Your task to perform on an android device: Search for sushi restaurants on Maps Image 0: 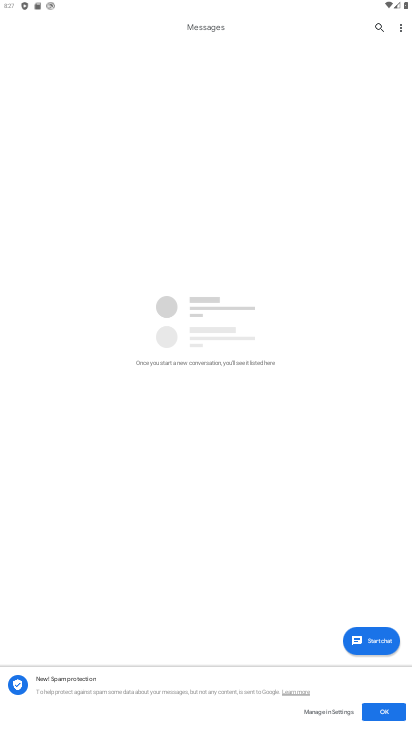
Step 0: press home button
Your task to perform on an android device: Search for sushi restaurants on Maps Image 1: 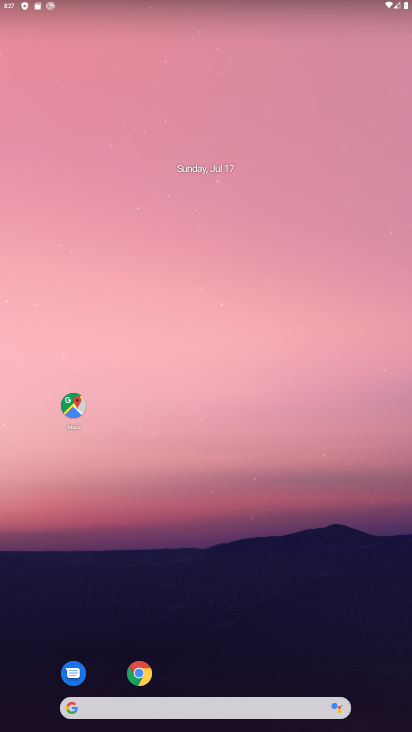
Step 1: drag from (243, 385) to (245, 235)
Your task to perform on an android device: Search for sushi restaurants on Maps Image 2: 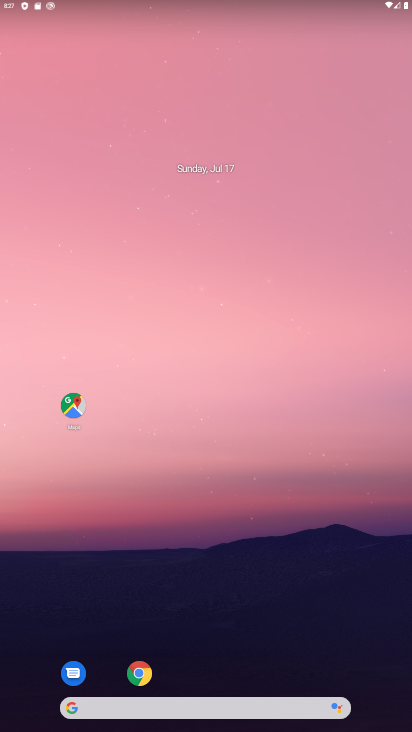
Step 2: drag from (206, 653) to (221, 115)
Your task to perform on an android device: Search for sushi restaurants on Maps Image 3: 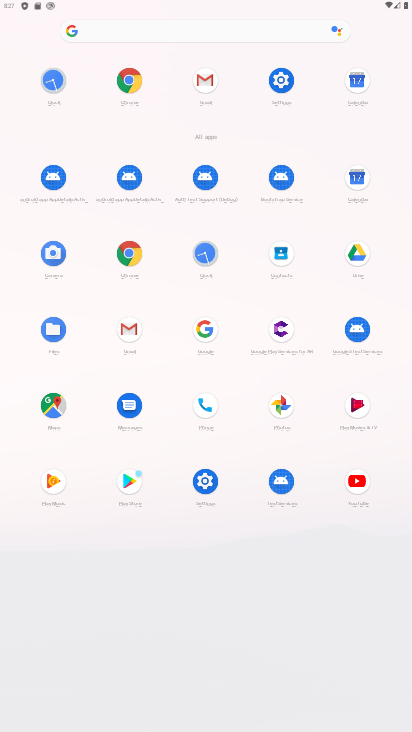
Step 3: click (52, 401)
Your task to perform on an android device: Search for sushi restaurants on Maps Image 4: 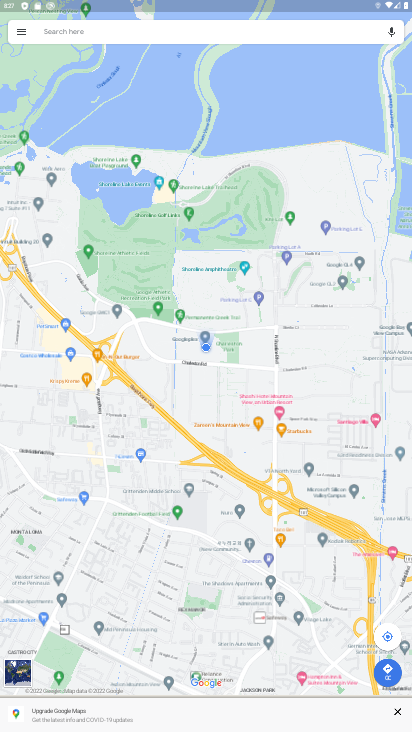
Step 4: click (73, 30)
Your task to perform on an android device: Search for sushi restaurants on Maps Image 5: 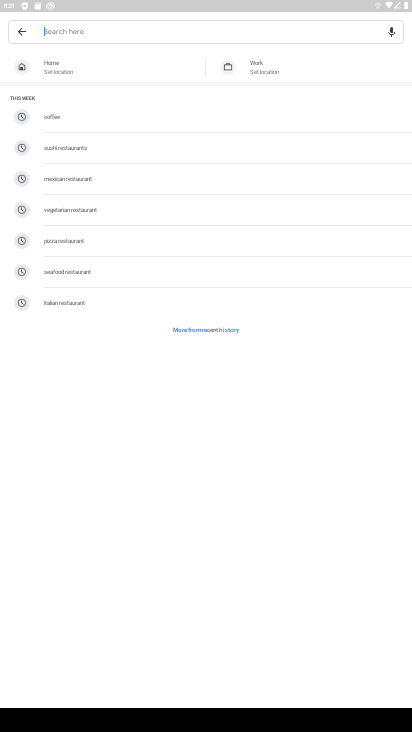
Step 5: click (83, 143)
Your task to perform on an android device: Search for sushi restaurants on Maps Image 6: 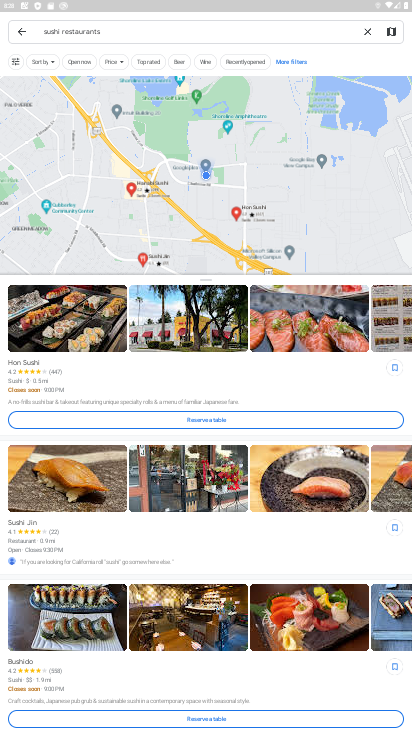
Step 6: task complete